Your task to perform on an android device: Open maps Image 0: 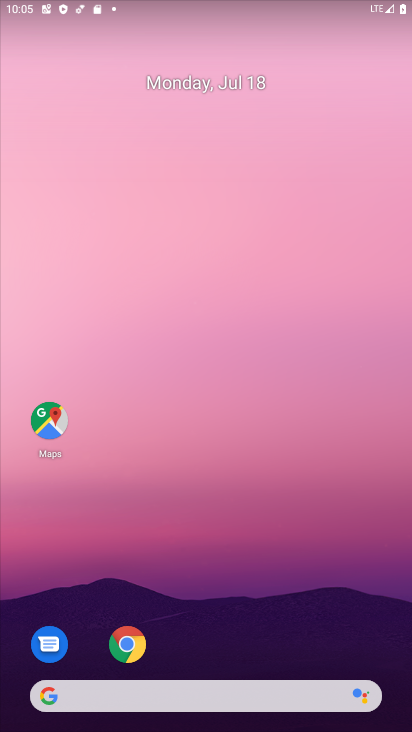
Step 0: drag from (360, 621) to (382, 140)
Your task to perform on an android device: Open maps Image 1: 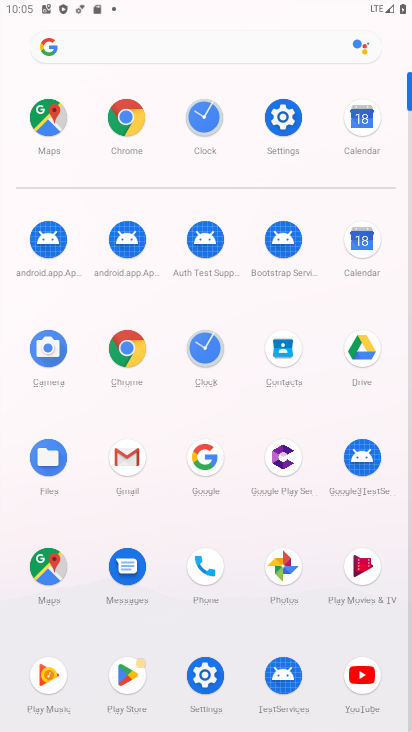
Step 1: click (53, 566)
Your task to perform on an android device: Open maps Image 2: 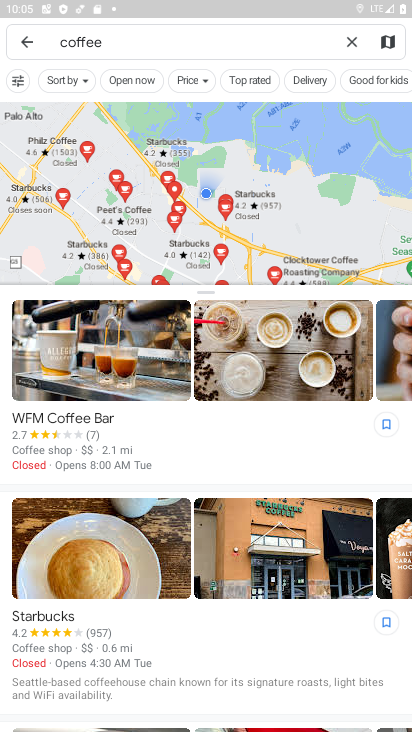
Step 2: task complete